Your task to perform on an android device: Do I have any events today? Image 0: 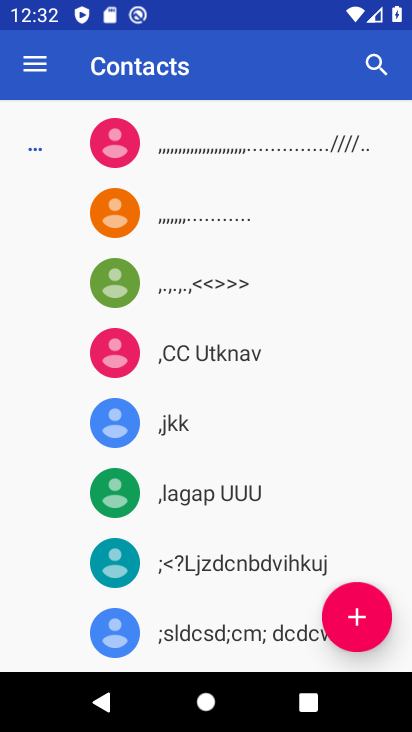
Step 0: press home button
Your task to perform on an android device: Do I have any events today? Image 1: 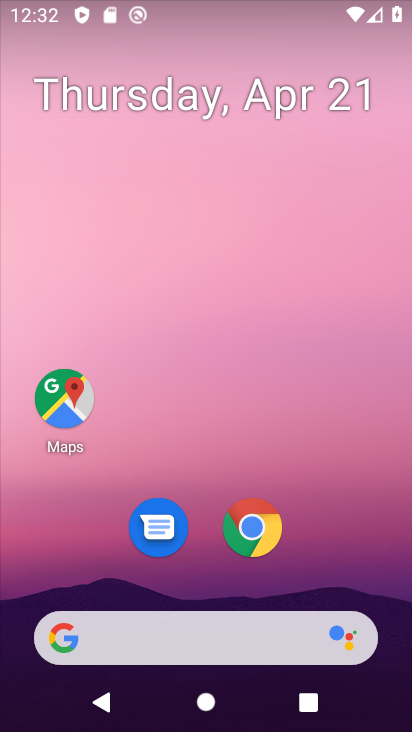
Step 1: drag from (349, 556) to (348, 110)
Your task to perform on an android device: Do I have any events today? Image 2: 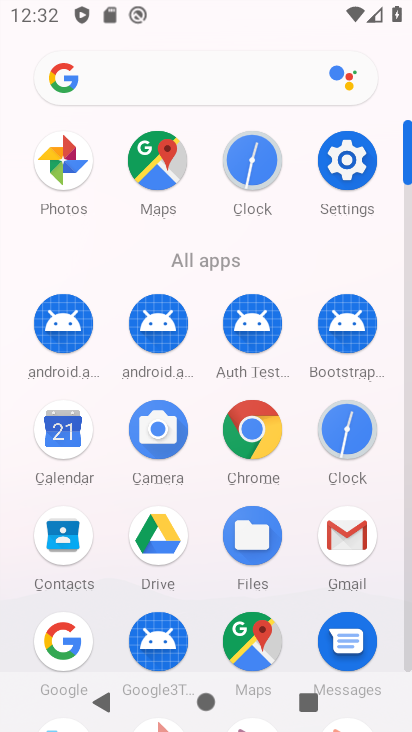
Step 2: click (50, 452)
Your task to perform on an android device: Do I have any events today? Image 3: 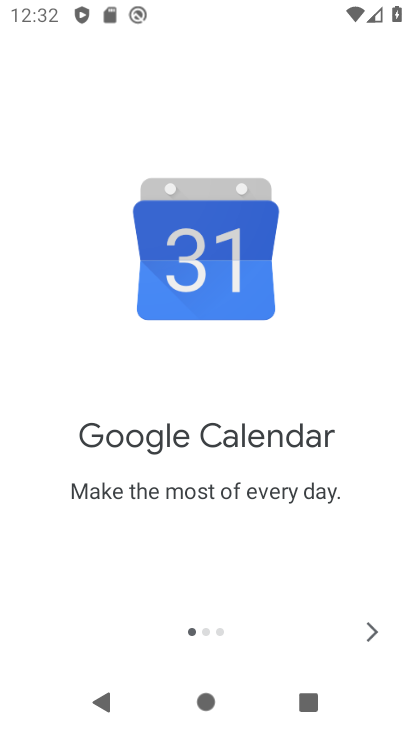
Step 3: click (365, 639)
Your task to perform on an android device: Do I have any events today? Image 4: 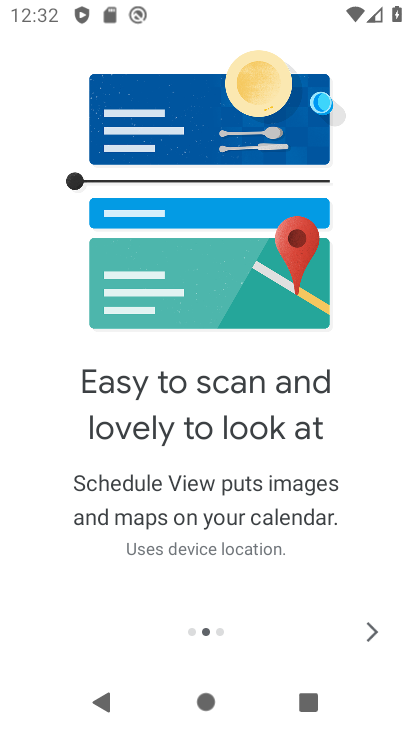
Step 4: click (359, 629)
Your task to perform on an android device: Do I have any events today? Image 5: 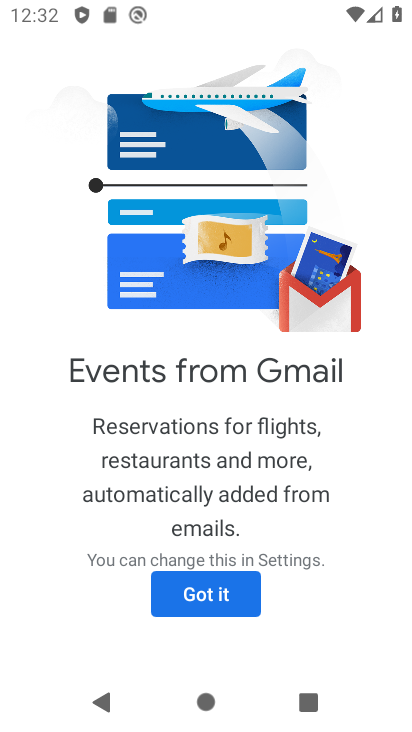
Step 5: click (240, 602)
Your task to perform on an android device: Do I have any events today? Image 6: 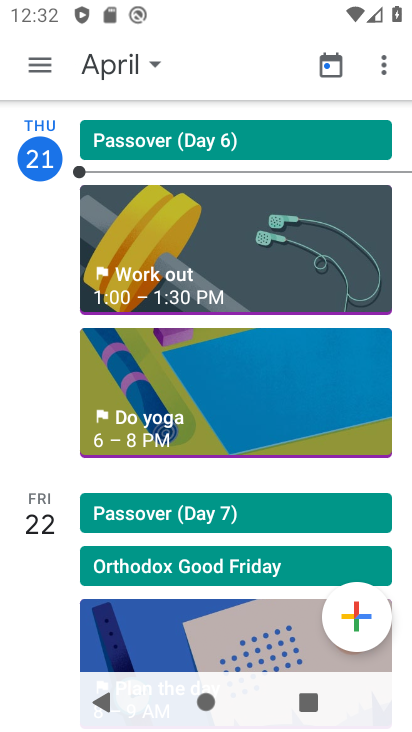
Step 6: click (224, 264)
Your task to perform on an android device: Do I have any events today? Image 7: 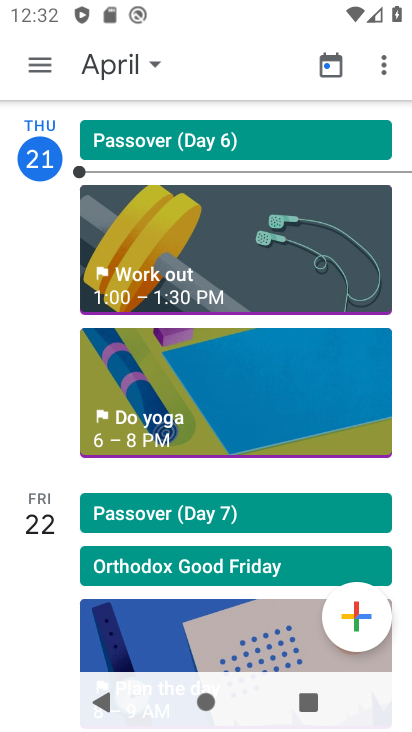
Step 7: click (276, 246)
Your task to perform on an android device: Do I have any events today? Image 8: 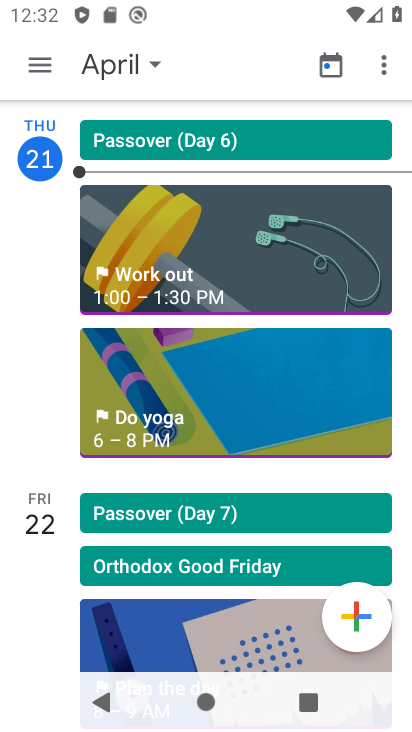
Step 8: task complete